Your task to perform on an android device: Go to Android settings Image 0: 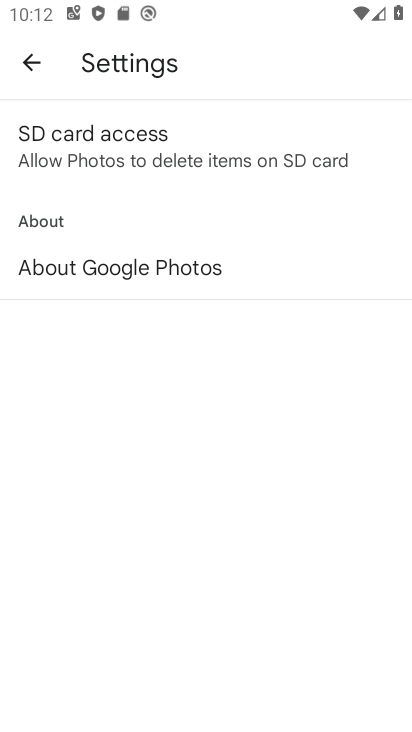
Step 0: press home button
Your task to perform on an android device: Go to Android settings Image 1: 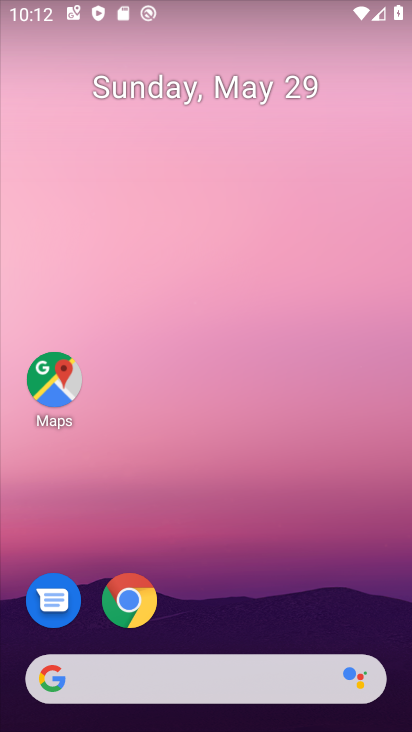
Step 1: drag from (201, 720) to (202, 176)
Your task to perform on an android device: Go to Android settings Image 2: 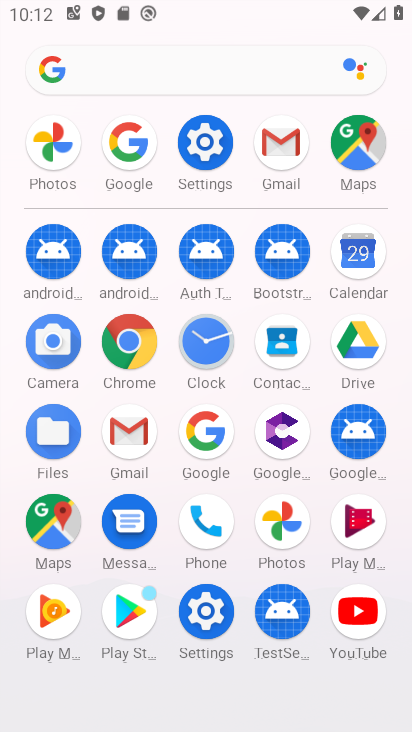
Step 2: click (199, 137)
Your task to perform on an android device: Go to Android settings Image 3: 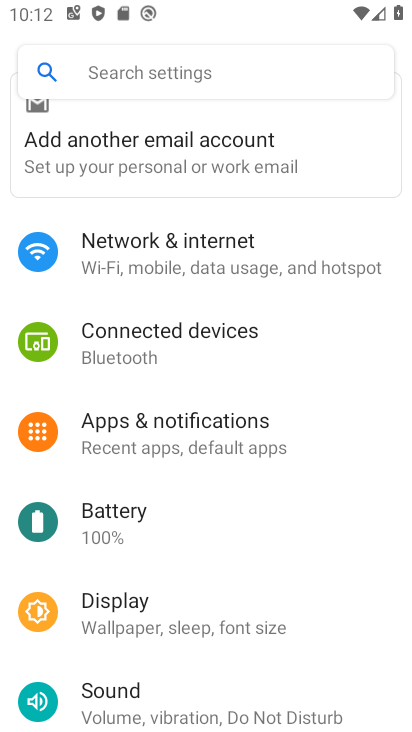
Step 3: task complete